Your task to perform on an android device: turn on notifications settings in the gmail app Image 0: 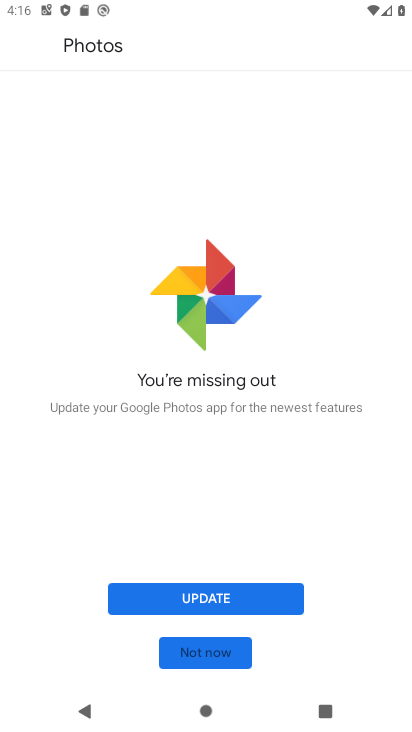
Step 0: press home button
Your task to perform on an android device: turn on notifications settings in the gmail app Image 1: 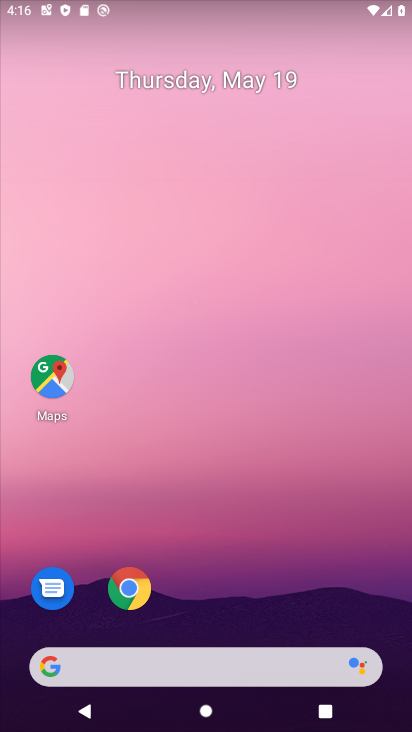
Step 1: drag from (227, 608) to (302, 34)
Your task to perform on an android device: turn on notifications settings in the gmail app Image 2: 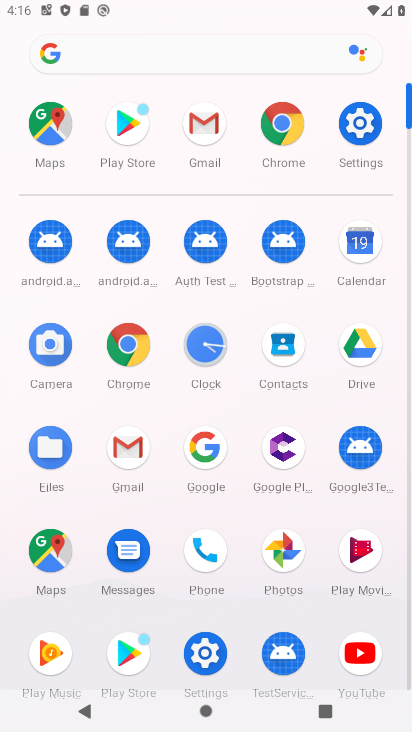
Step 2: click (190, 150)
Your task to perform on an android device: turn on notifications settings in the gmail app Image 3: 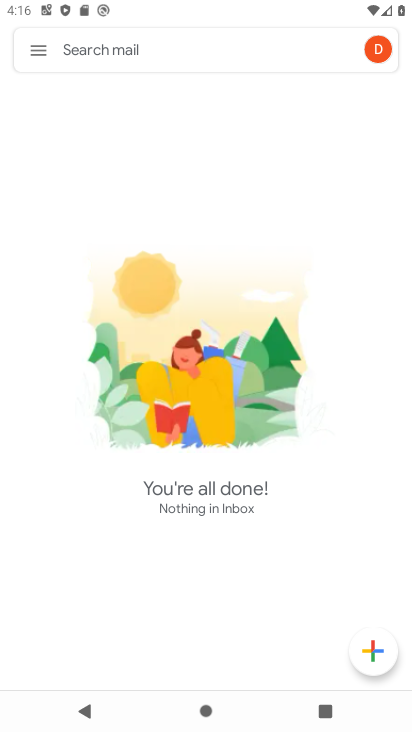
Step 3: click (43, 47)
Your task to perform on an android device: turn on notifications settings in the gmail app Image 4: 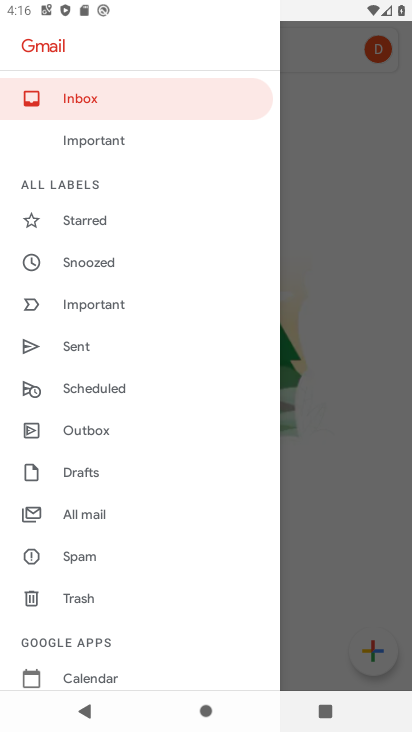
Step 4: drag from (117, 670) to (150, 271)
Your task to perform on an android device: turn on notifications settings in the gmail app Image 5: 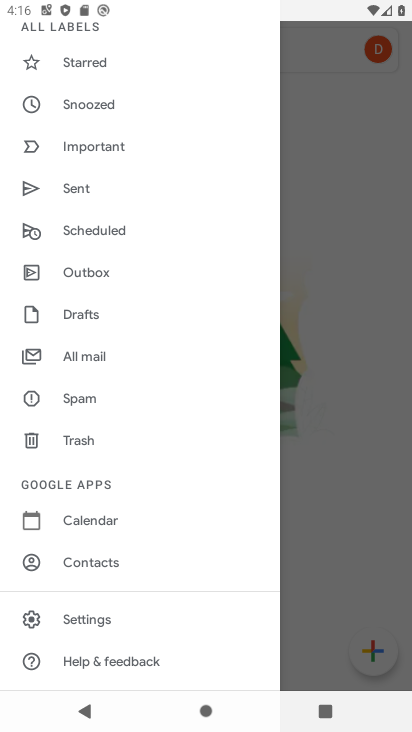
Step 5: click (89, 603)
Your task to perform on an android device: turn on notifications settings in the gmail app Image 6: 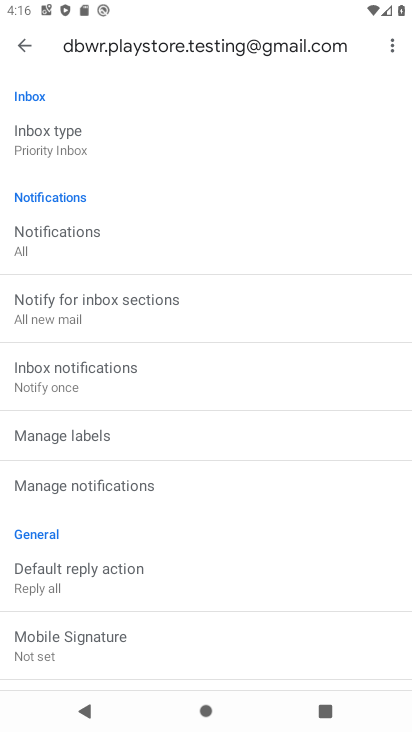
Step 6: click (121, 258)
Your task to perform on an android device: turn on notifications settings in the gmail app Image 7: 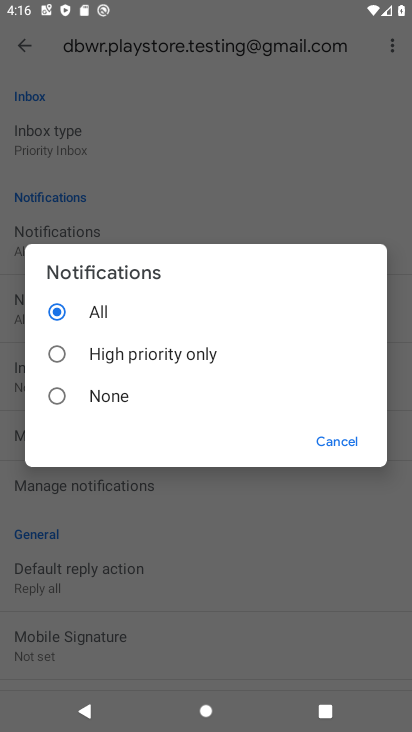
Step 7: click (132, 407)
Your task to perform on an android device: turn on notifications settings in the gmail app Image 8: 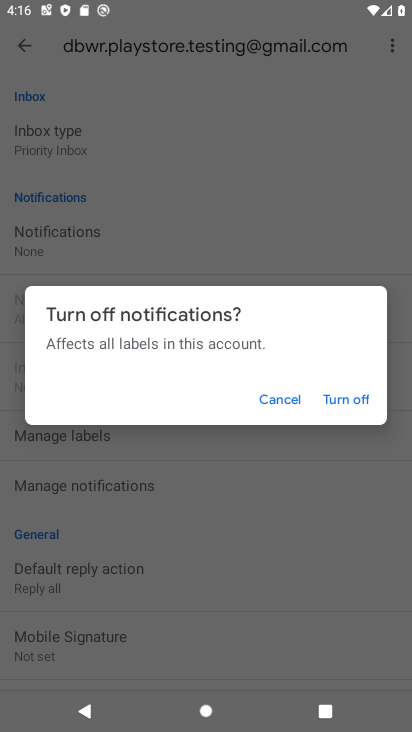
Step 8: click (298, 396)
Your task to perform on an android device: turn on notifications settings in the gmail app Image 9: 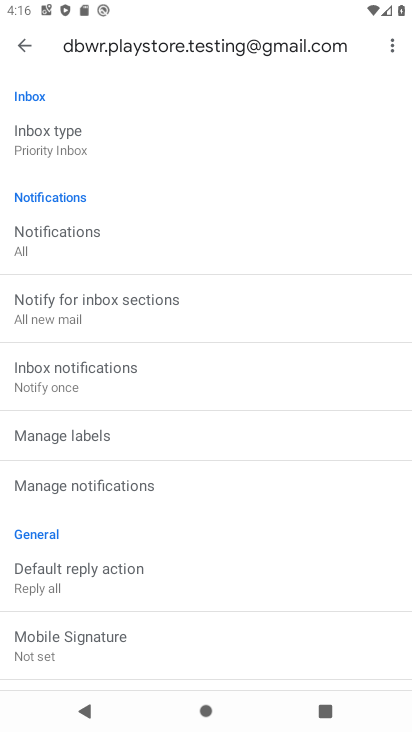
Step 9: click (118, 235)
Your task to perform on an android device: turn on notifications settings in the gmail app Image 10: 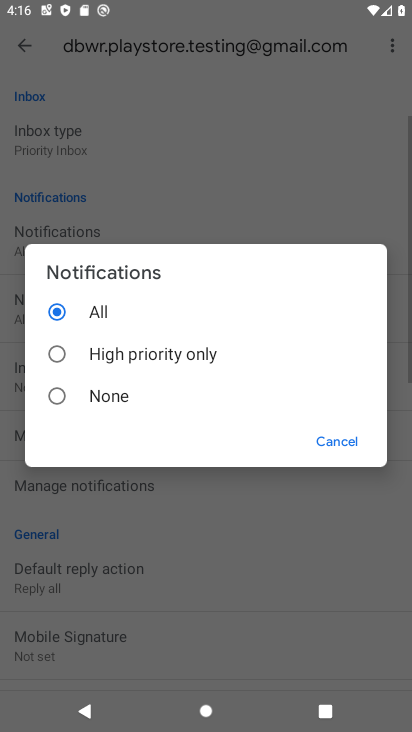
Step 10: task complete